Your task to perform on an android device: allow notifications from all sites in the chrome app Image 0: 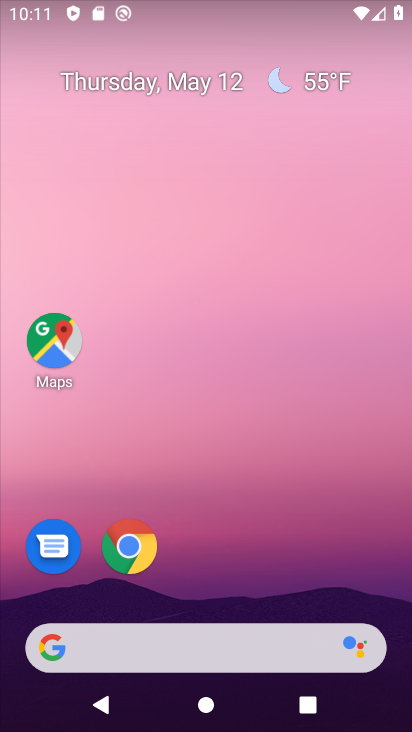
Step 0: click (133, 551)
Your task to perform on an android device: allow notifications from all sites in the chrome app Image 1: 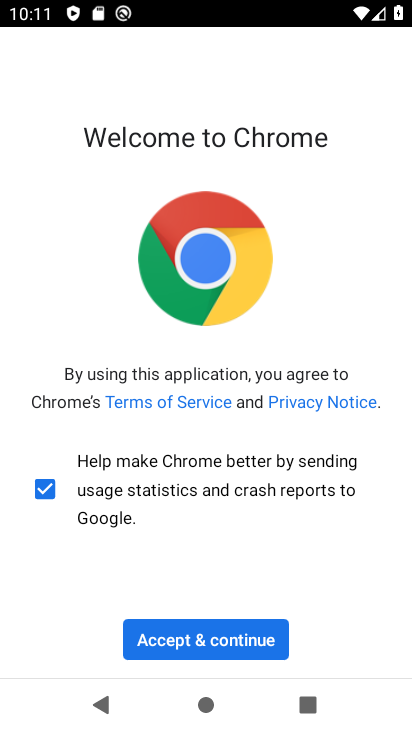
Step 1: click (193, 634)
Your task to perform on an android device: allow notifications from all sites in the chrome app Image 2: 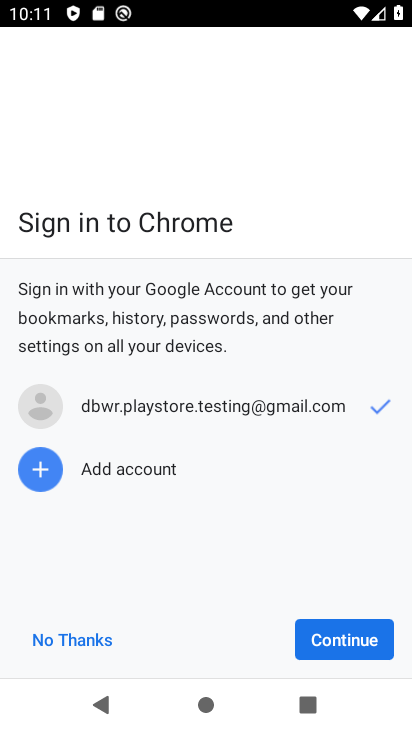
Step 2: click (331, 645)
Your task to perform on an android device: allow notifications from all sites in the chrome app Image 3: 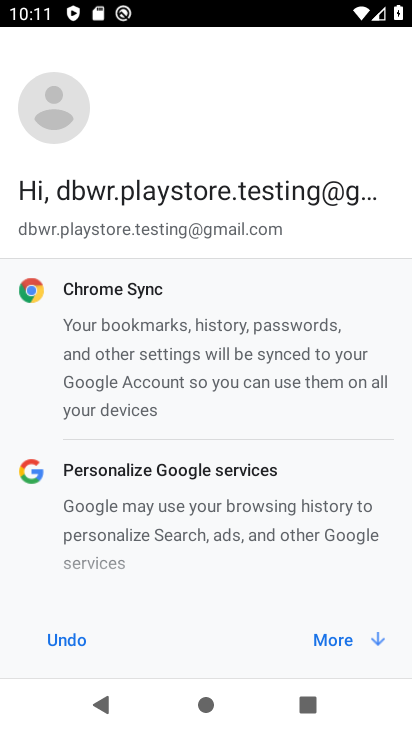
Step 3: click (335, 638)
Your task to perform on an android device: allow notifications from all sites in the chrome app Image 4: 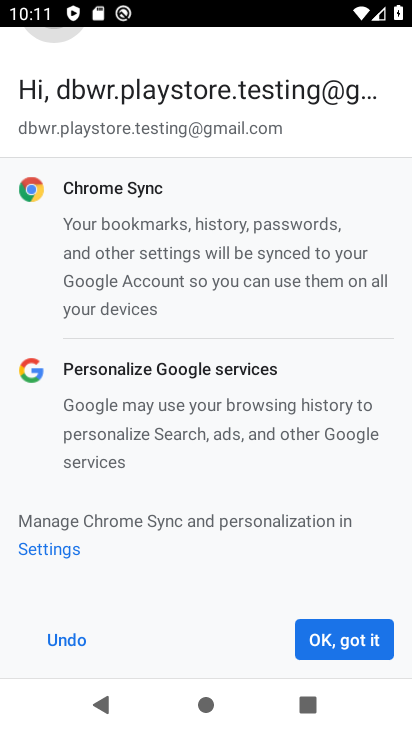
Step 4: click (335, 637)
Your task to perform on an android device: allow notifications from all sites in the chrome app Image 5: 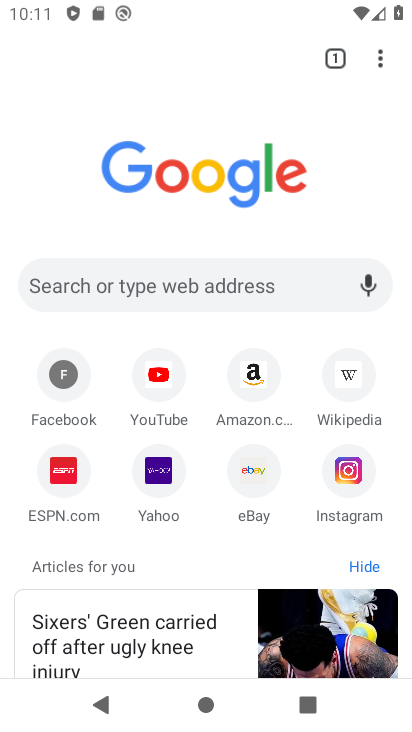
Step 5: click (379, 56)
Your task to perform on an android device: allow notifications from all sites in the chrome app Image 6: 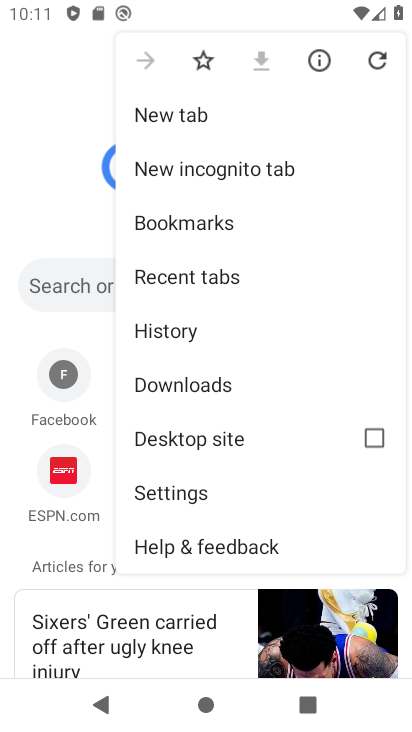
Step 6: click (201, 494)
Your task to perform on an android device: allow notifications from all sites in the chrome app Image 7: 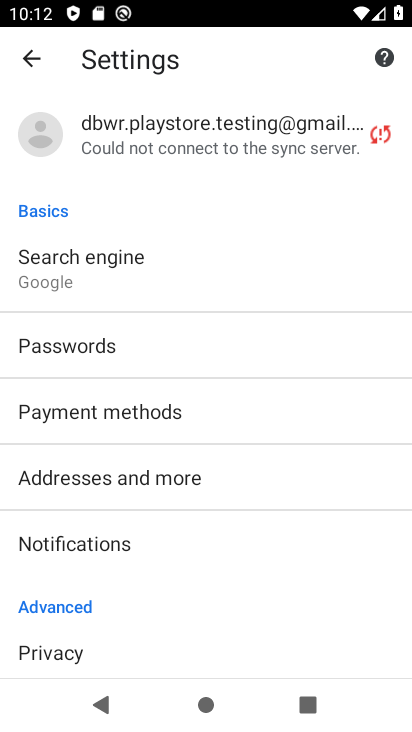
Step 7: click (109, 539)
Your task to perform on an android device: allow notifications from all sites in the chrome app Image 8: 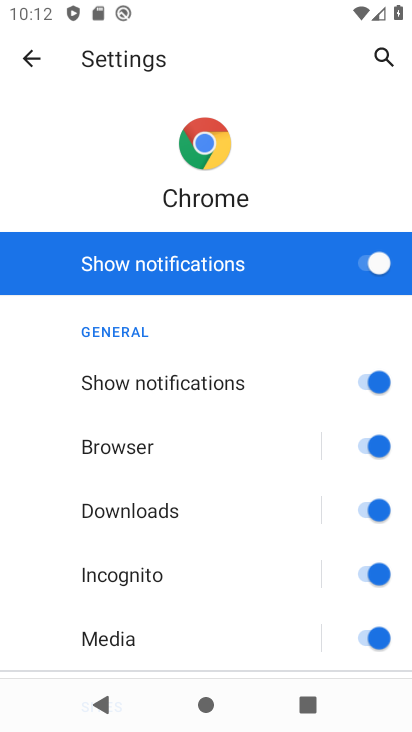
Step 8: task complete